Your task to perform on an android device: set the stopwatch Image 0: 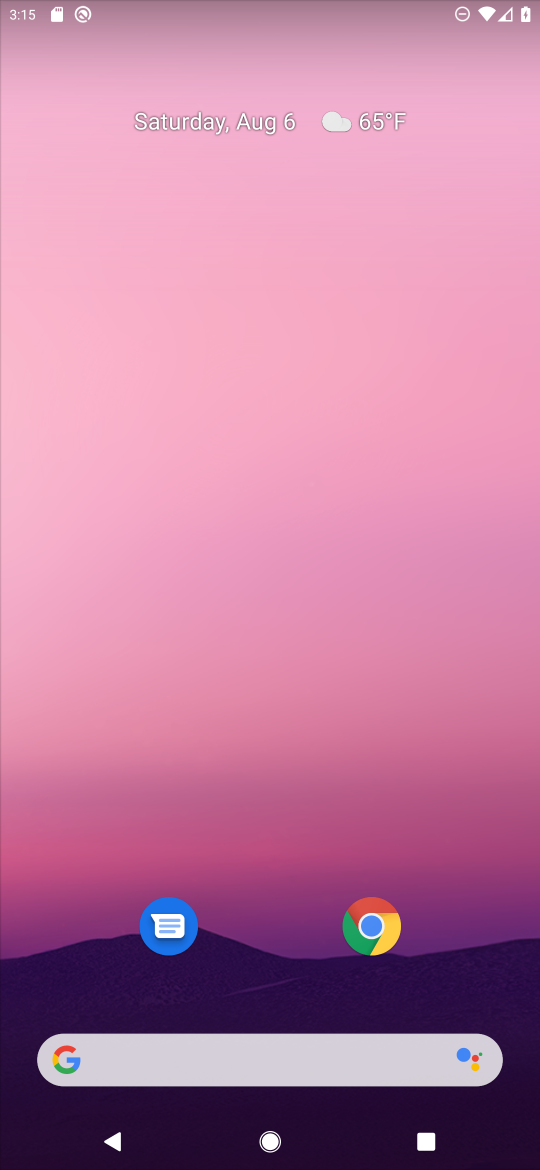
Step 0: drag from (298, 914) to (286, 283)
Your task to perform on an android device: set the stopwatch Image 1: 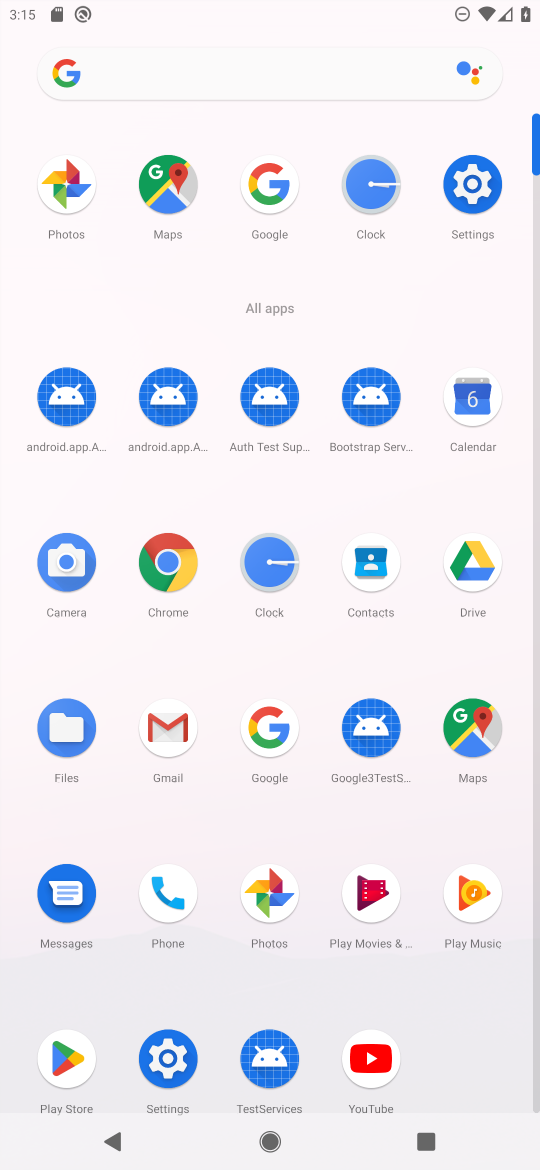
Step 1: click (377, 172)
Your task to perform on an android device: set the stopwatch Image 2: 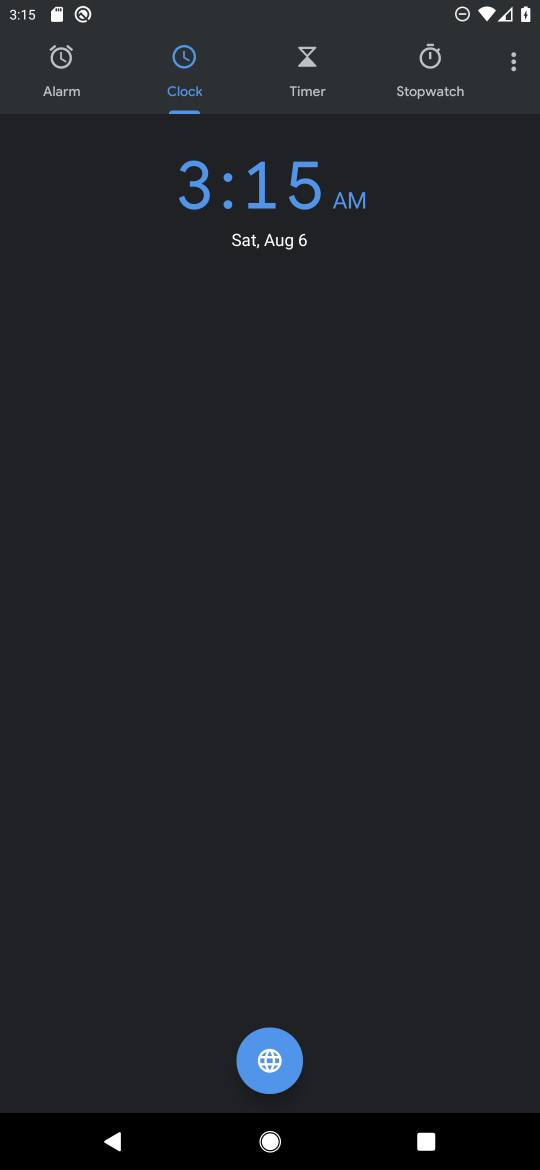
Step 2: click (424, 83)
Your task to perform on an android device: set the stopwatch Image 3: 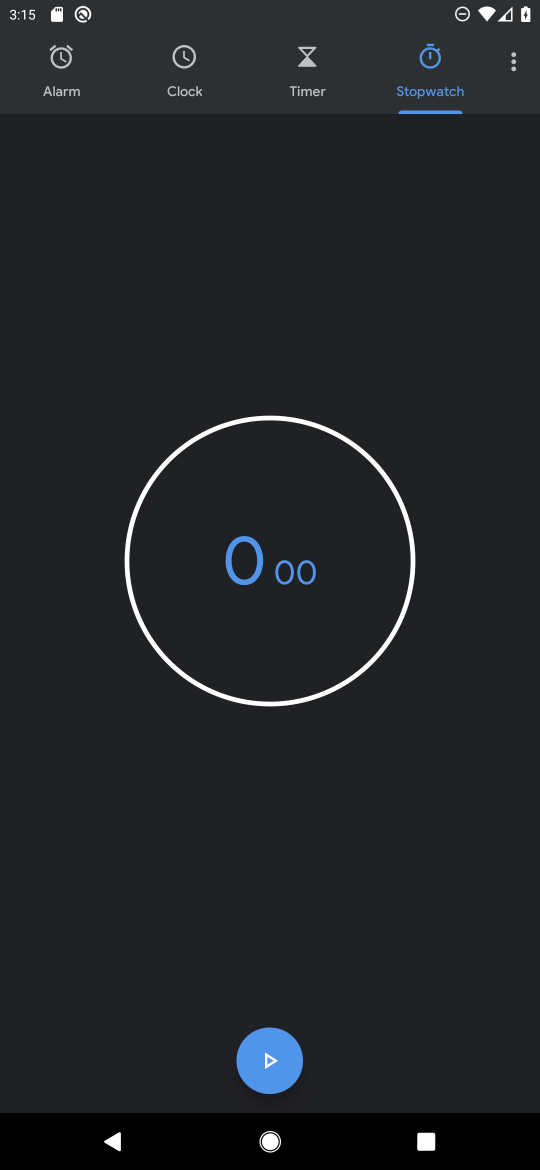
Step 3: task complete